Your task to perform on an android device: open a new tab in the chrome app Image 0: 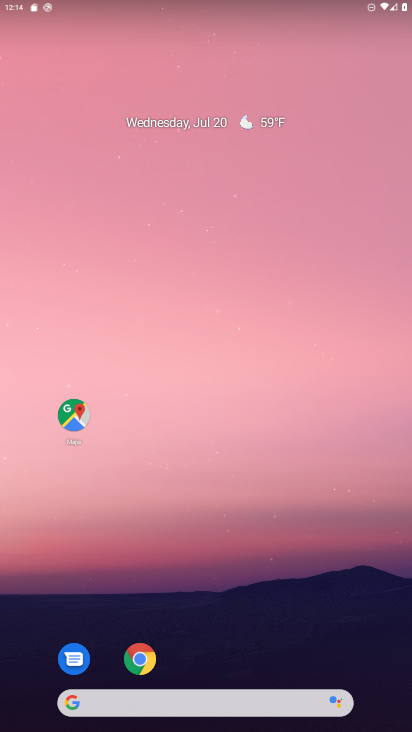
Step 0: drag from (310, 605) to (236, 61)
Your task to perform on an android device: open a new tab in the chrome app Image 1: 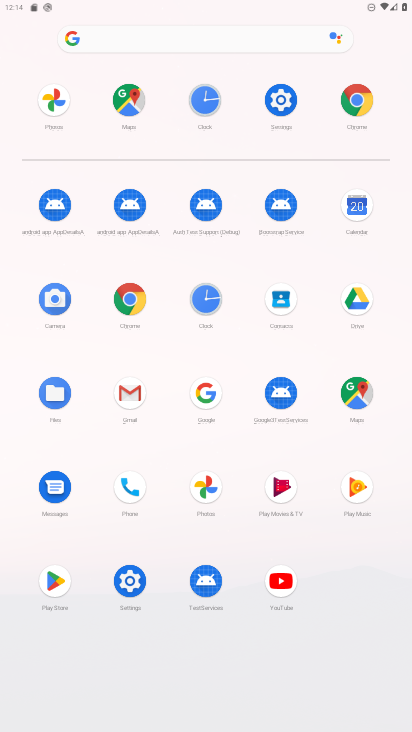
Step 1: click (129, 299)
Your task to perform on an android device: open a new tab in the chrome app Image 2: 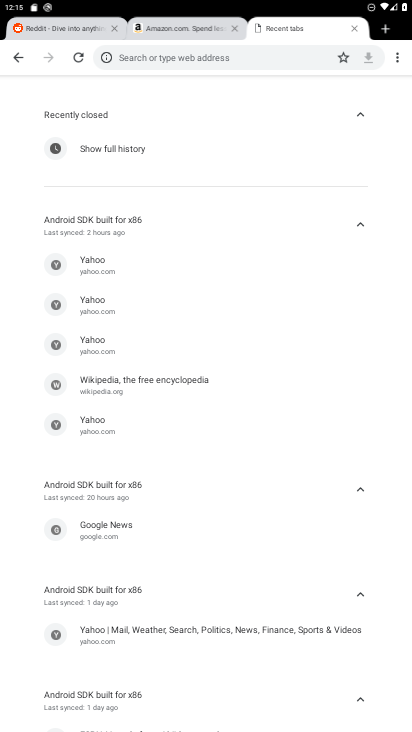
Step 2: click (379, 32)
Your task to perform on an android device: open a new tab in the chrome app Image 3: 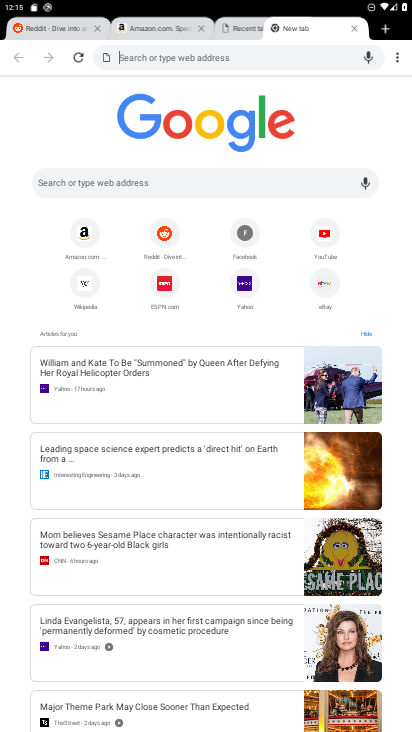
Step 3: task complete